Your task to perform on an android device: Go to CNN.com Image 0: 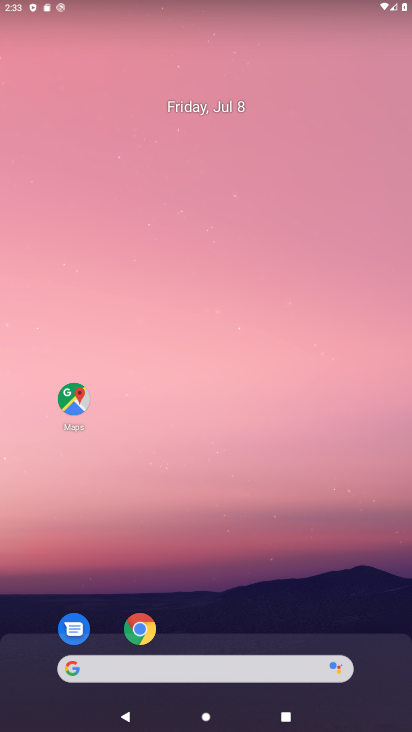
Step 0: click (137, 629)
Your task to perform on an android device: Go to CNN.com Image 1: 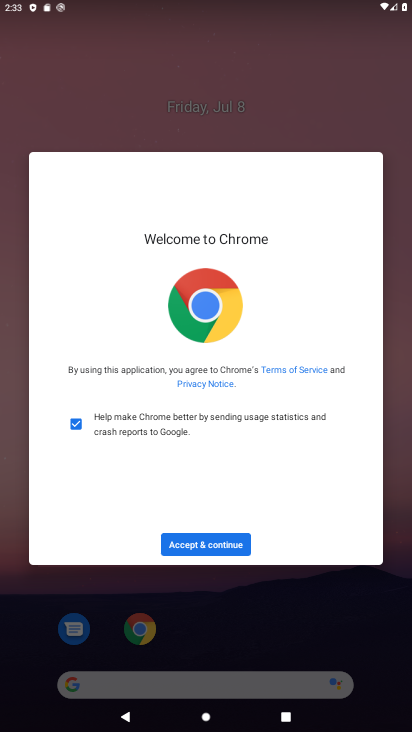
Step 1: click (237, 550)
Your task to perform on an android device: Go to CNN.com Image 2: 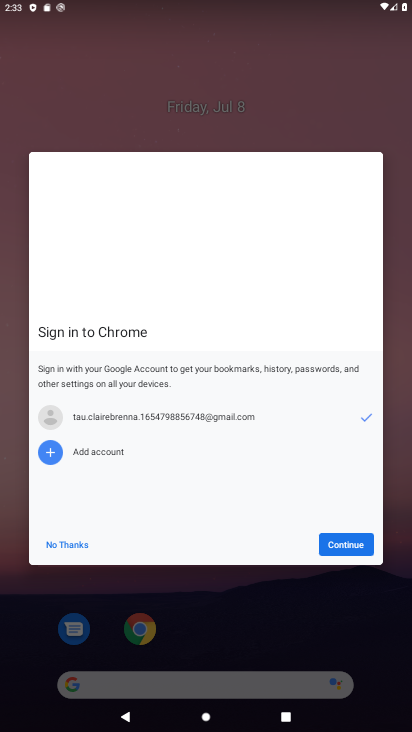
Step 2: click (326, 545)
Your task to perform on an android device: Go to CNN.com Image 3: 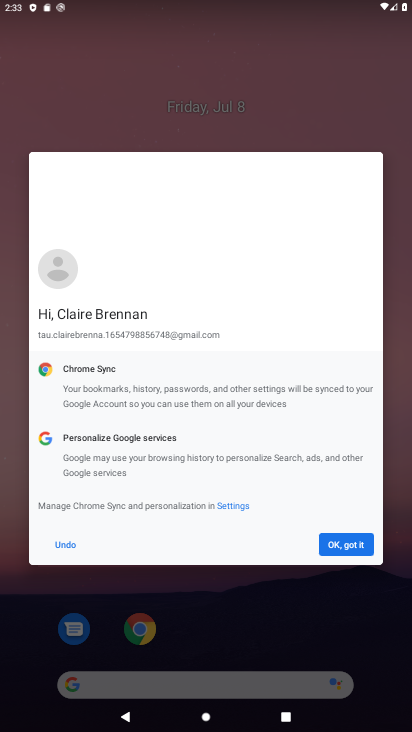
Step 3: click (327, 546)
Your task to perform on an android device: Go to CNN.com Image 4: 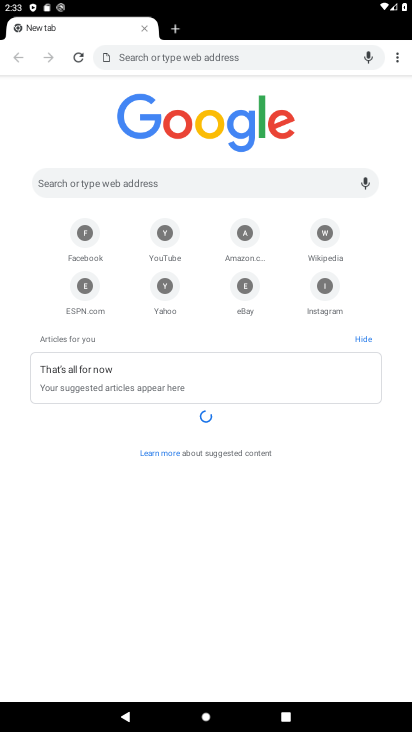
Step 4: click (93, 187)
Your task to perform on an android device: Go to CNN.com Image 5: 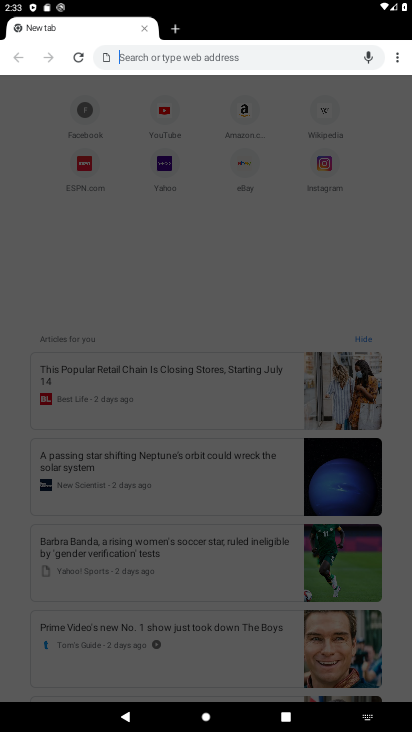
Step 5: type "CNN.com"
Your task to perform on an android device: Go to CNN.com Image 6: 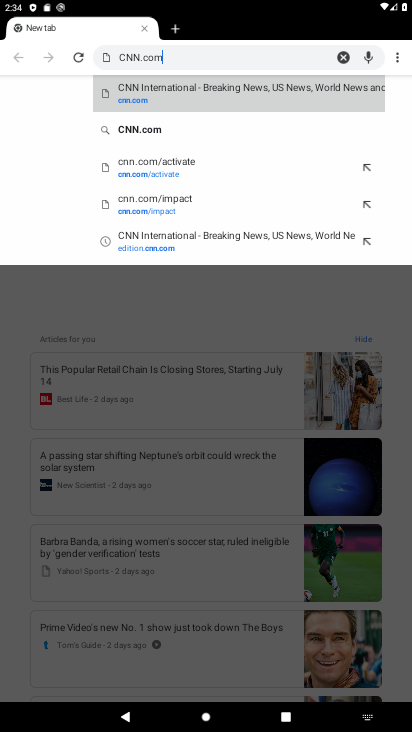
Step 6: click (185, 134)
Your task to perform on an android device: Go to CNN.com Image 7: 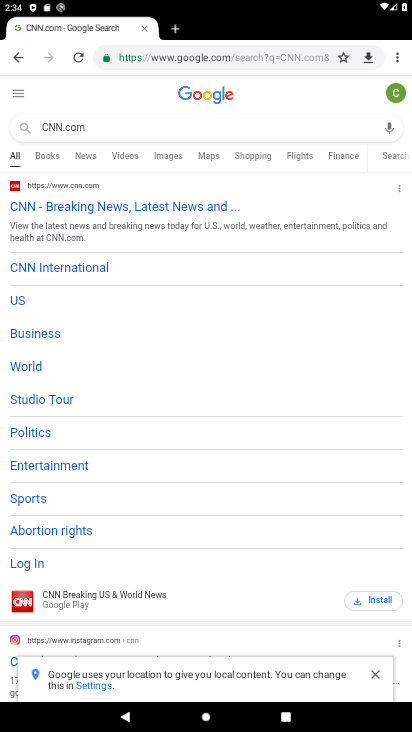
Step 7: click (106, 214)
Your task to perform on an android device: Go to CNN.com Image 8: 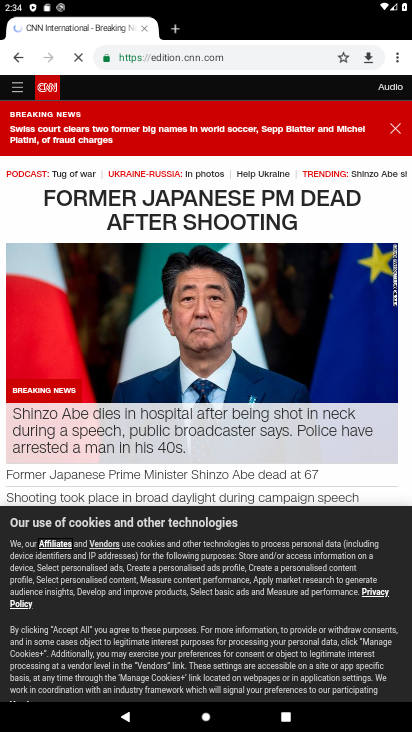
Step 8: task complete